Your task to perform on an android device: Go to notification settings Image 0: 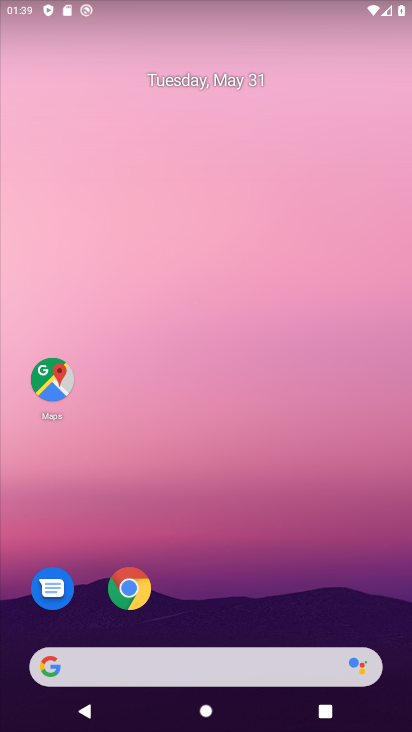
Step 0: drag from (352, 607) to (379, 256)
Your task to perform on an android device: Go to notification settings Image 1: 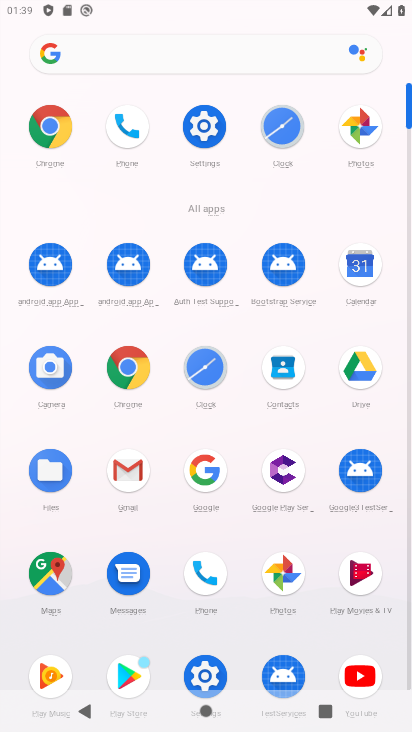
Step 1: click (199, 139)
Your task to perform on an android device: Go to notification settings Image 2: 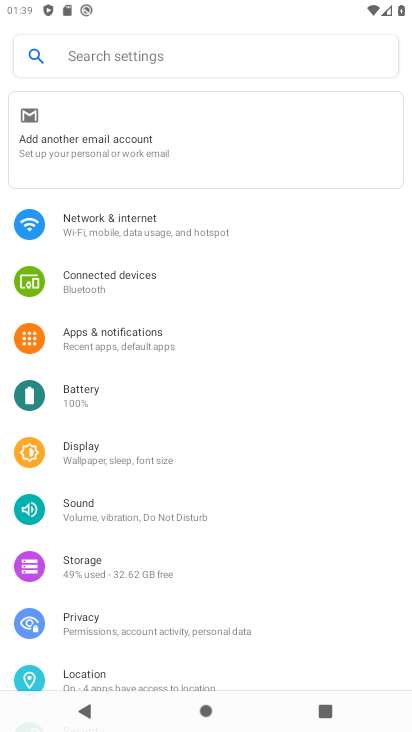
Step 2: drag from (347, 467) to (337, 309)
Your task to perform on an android device: Go to notification settings Image 3: 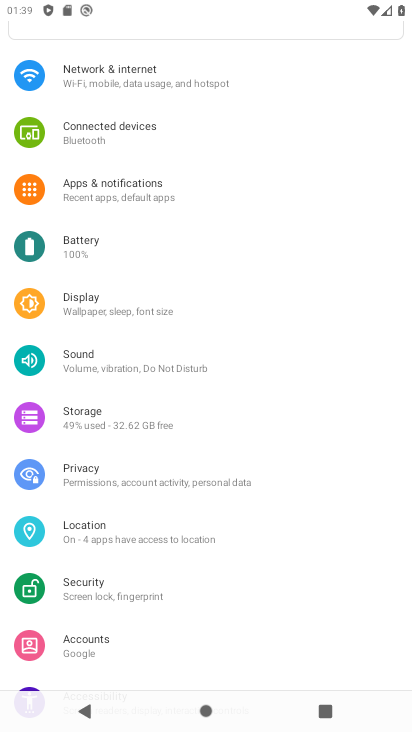
Step 3: drag from (348, 530) to (329, 273)
Your task to perform on an android device: Go to notification settings Image 4: 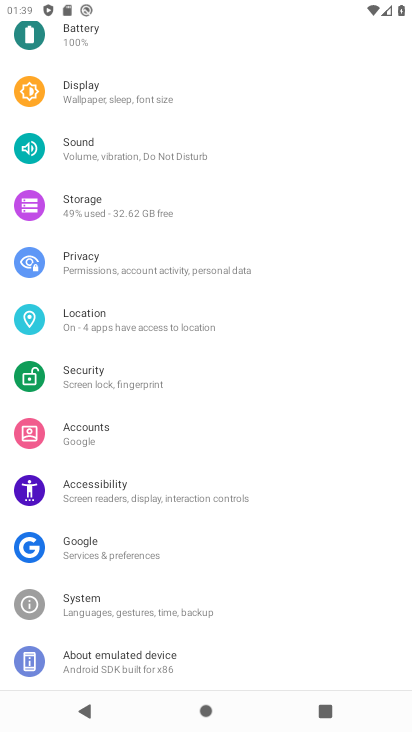
Step 4: drag from (335, 498) to (331, 286)
Your task to perform on an android device: Go to notification settings Image 5: 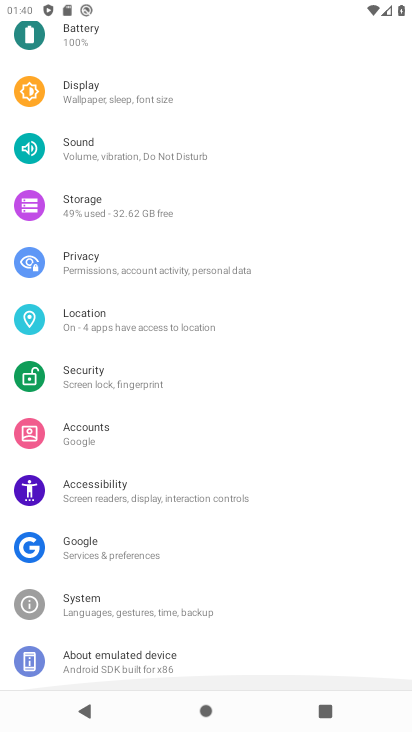
Step 5: drag from (328, 222) to (338, 325)
Your task to perform on an android device: Go to notification settings Image 6: 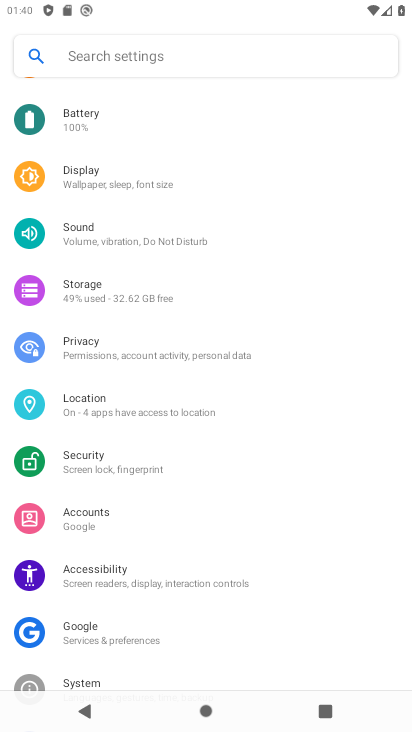
Step 6: drag from (339, 231) to (350, 351)
Your task to perform on an android device: Go to notification settings Image 7: 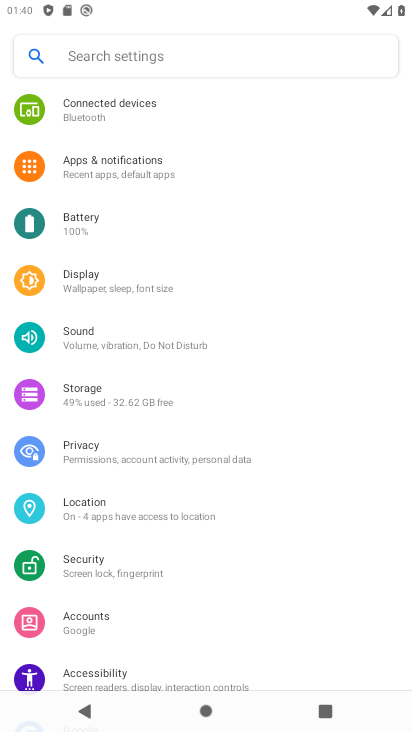
Step 7: drag from (323, 226) to (329, 319)
Your task to perform on an android device: Go to notification settings Image 8: 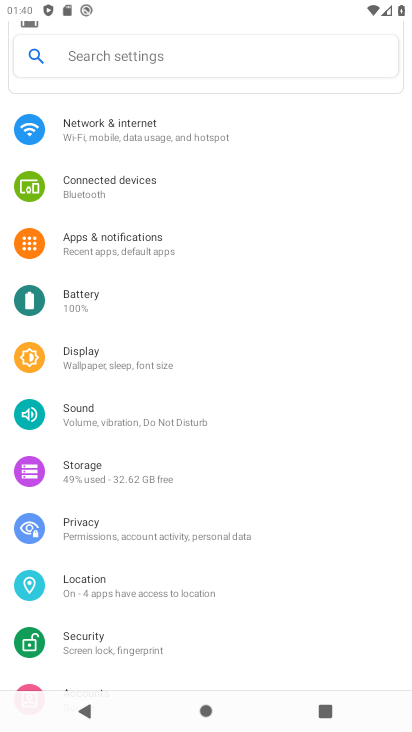
Step 8: drag from (284, 209) to (277, 321)
Your task to perform on an android device: Go to notification settings Image 9: 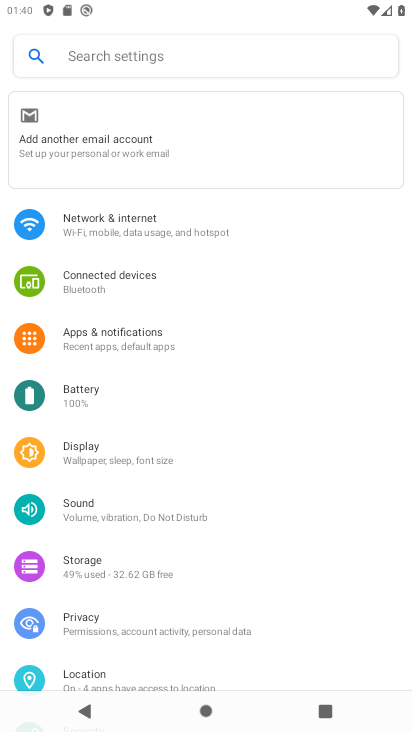
Step 9: click (181, 348)
Your task to perform on an android device: Go to notification settings Image 10: 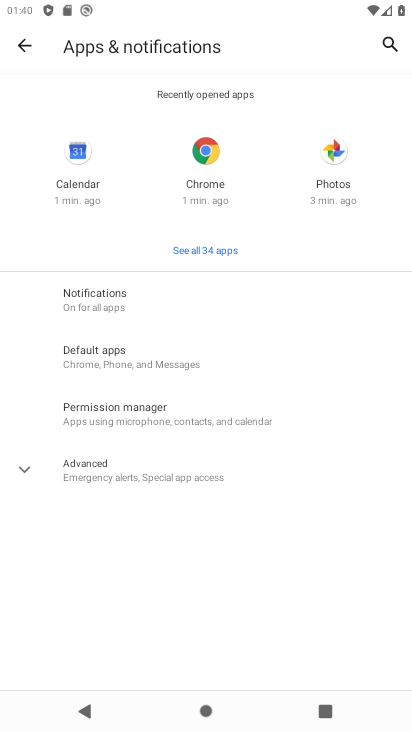
Step 10: click (120, 316)
Your task to perform on an android device: Go to notification settings Image 11: 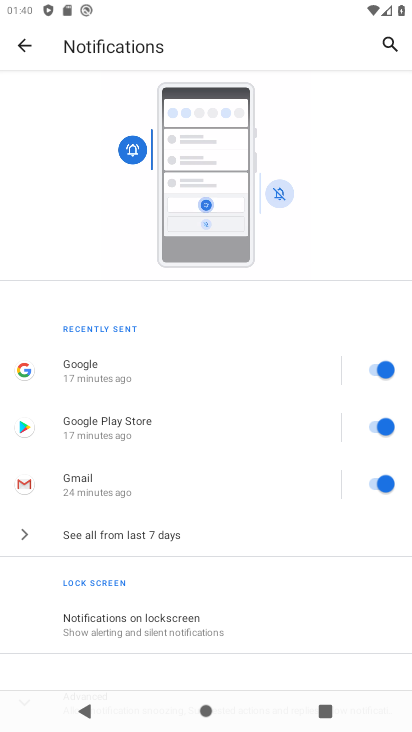
Step 11: task complete